Your task to perform on an android device: open chrome privacy settings Image 0: 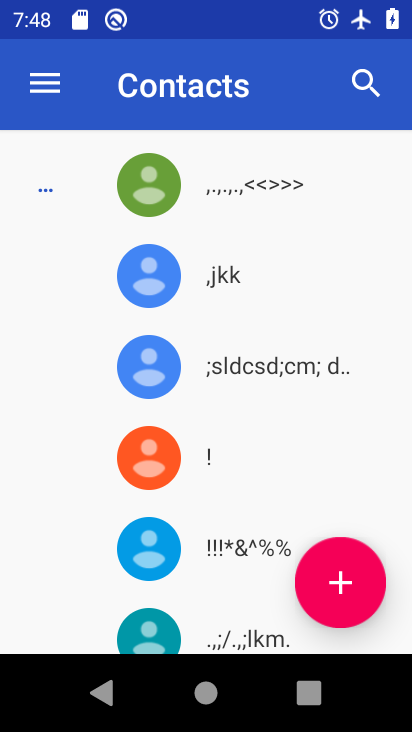
Step 0: press back button
Your task to perform on an android device: open chrome privacy settings Image 1: 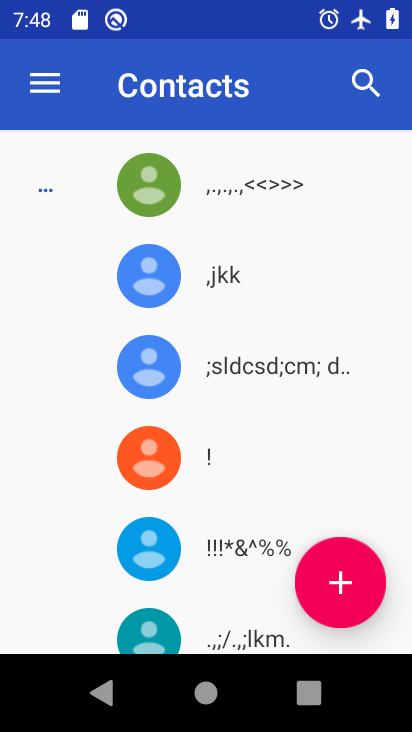
Step 1: press back button
Your task to perform on an android device: open chrome privacy settings Image 2: 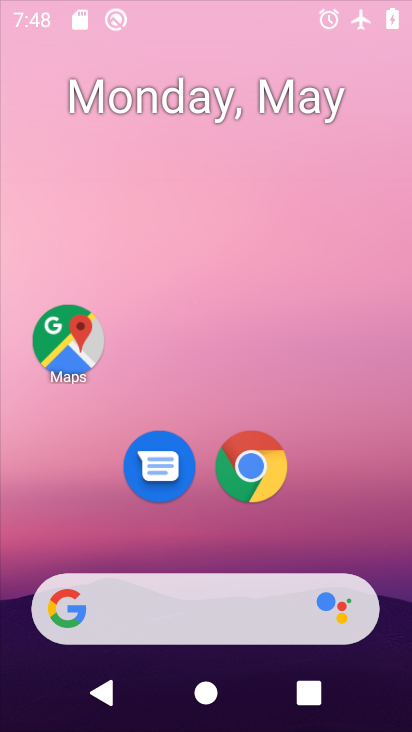
Step 2: press back button
Your task to perform on an android device: open chrome privacy settings Image 3: 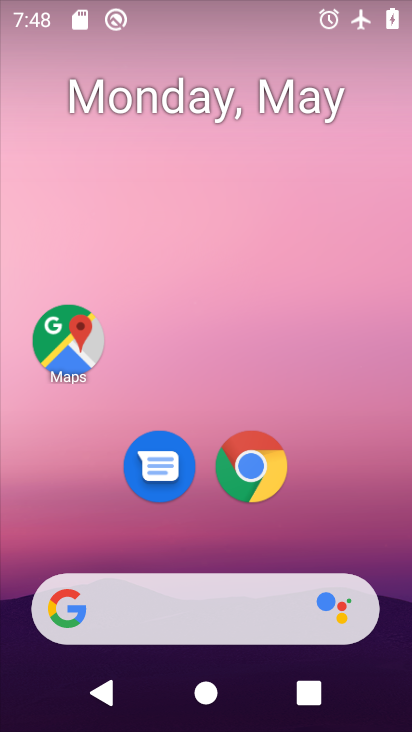
Step 3: drag from (369, 625) to (299, 18)
Your task to perform on an android device: open chrome privacy settings Image 4: 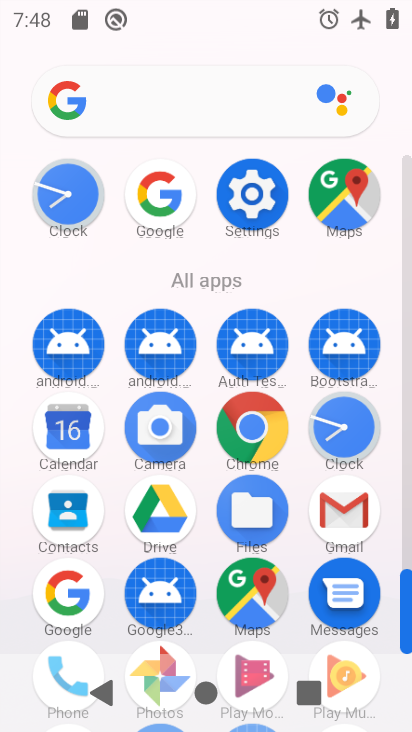
Step 4: click (249, 199)
Your task to perform on an android device: open chrome privacy settings Image 5: 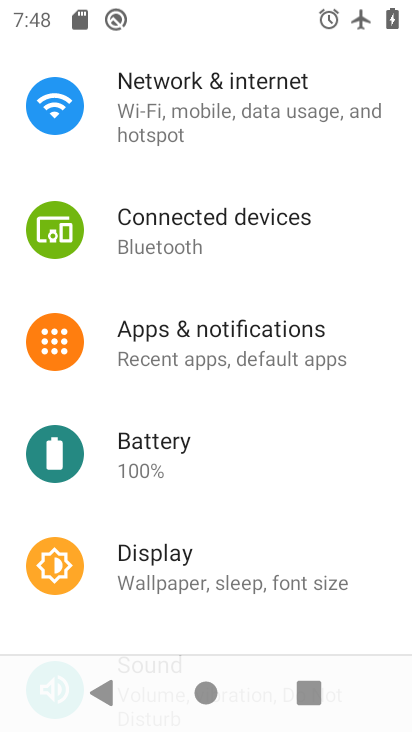
Step 5: press home button
Your task to perform on an android device: open chrome privacy settings Image 6: 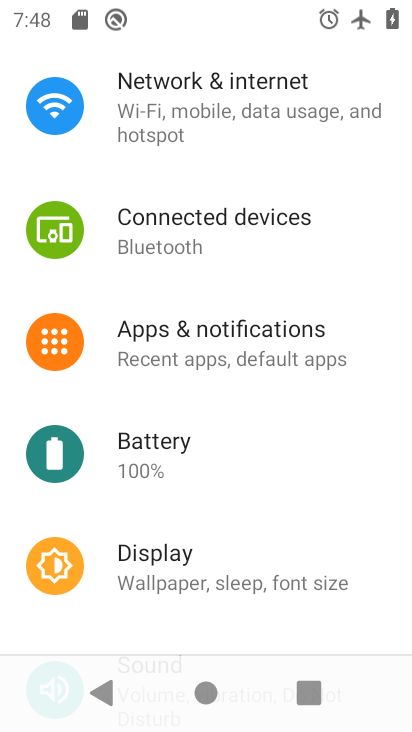
Step 6: press home button
Your task to perform on an android device: open chrome privacy settings Image 7: 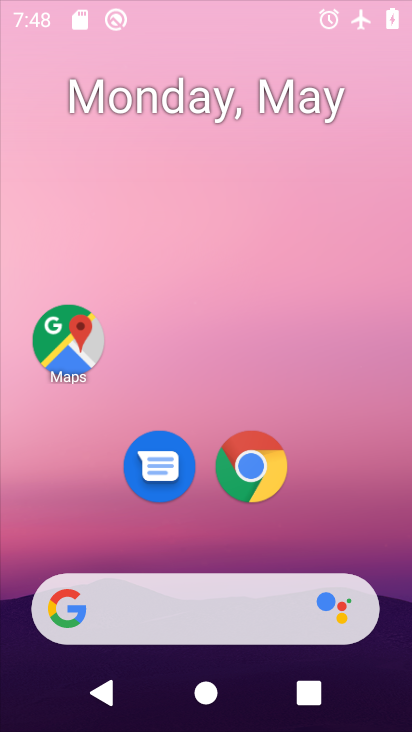
Step 7: press home button
Your task to perform on an android device: open chrome privacy settings Image 8: 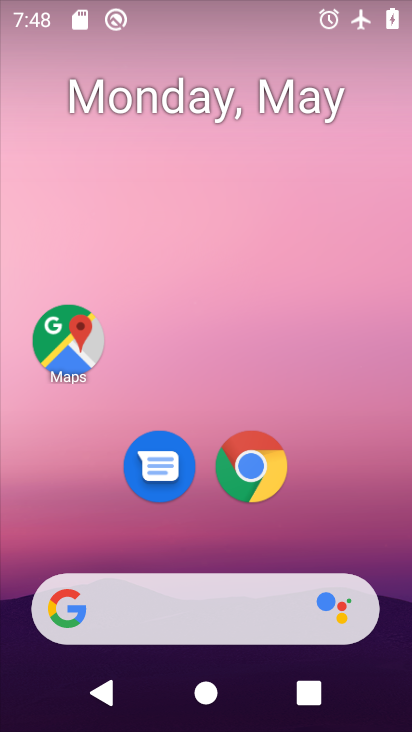
Step 8: drag from (311, 575) to (206, 94)
Your task to perform on an android device: open chrome privacy settings Image 9: 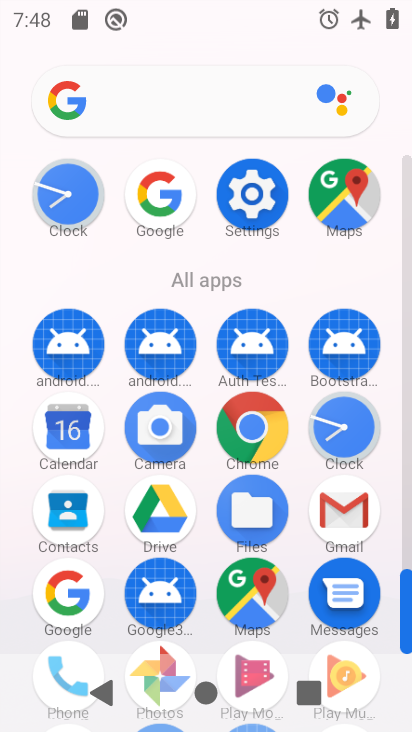
Step 9: click (244, 199)
Your task to perform on an android device: open chrome privacy settings Image 10: 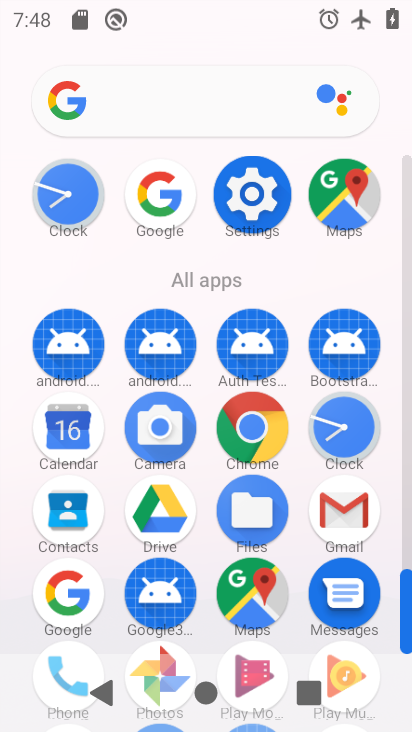
Step 10: click (244, 199)
Your task to perform on an android device: open chrome privacy settings Image 11: 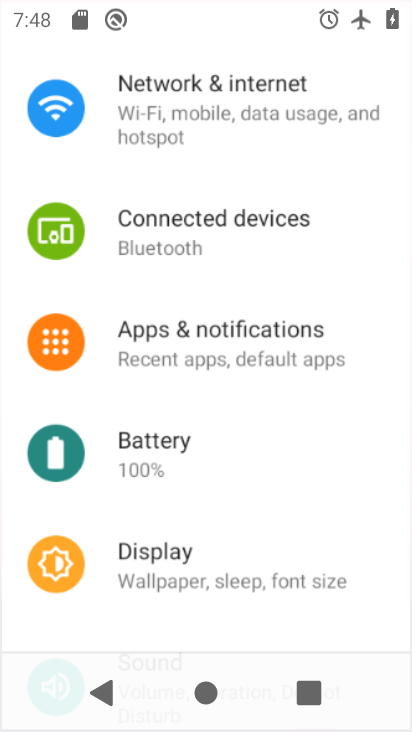
Step 11: click (245, 198)
Your task to perform on an android device: open chrome privacy settings Image 12: 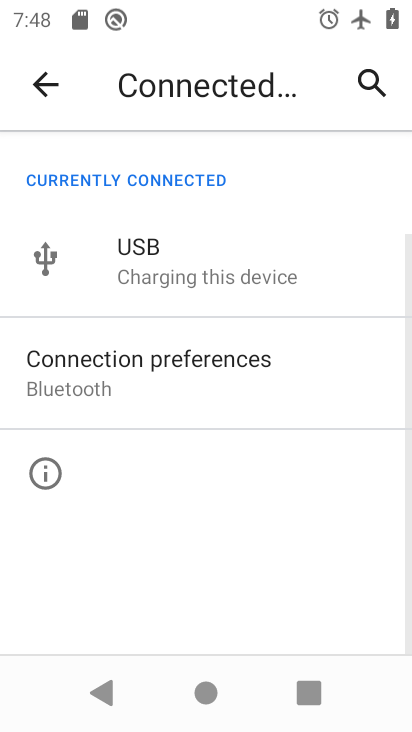
Step 12: click (42, 90)
Your task to perform on an android device: open chrome privacy settings Image 13: 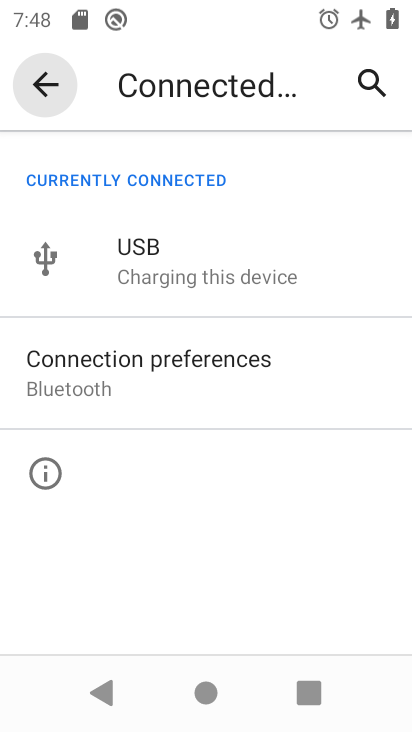
Step 13: click (41, 89)
Your task to perform on an android device: open chrome privacy settings Image 14: 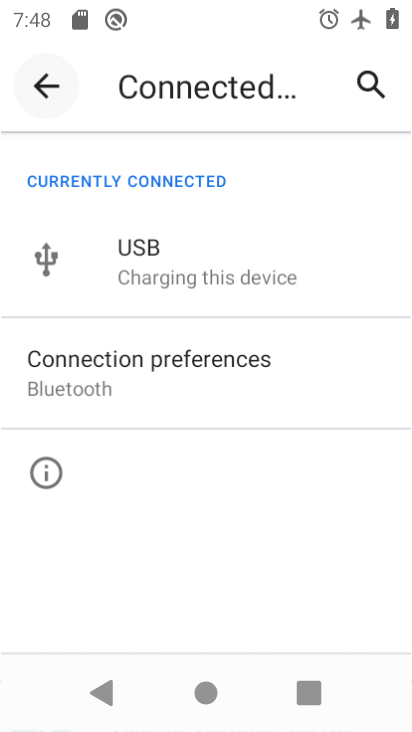
Step 14: click (39, 90)
Your task to perform on an android device: open chrome privacy settings Image 15: 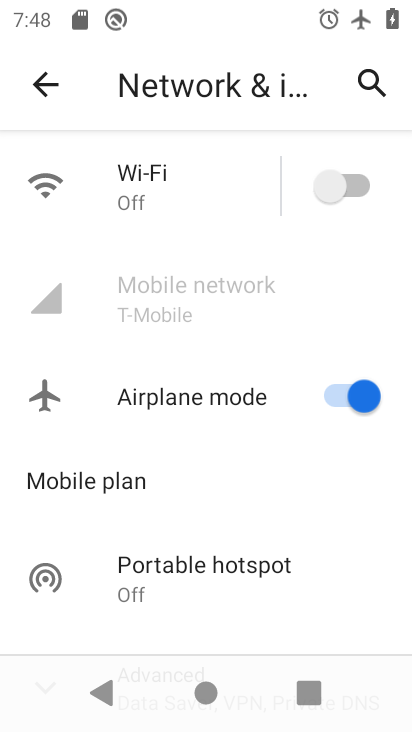
Step 15: click (39, 78)
Your task to perform on an android device: open chrome privacy settings Image 16: 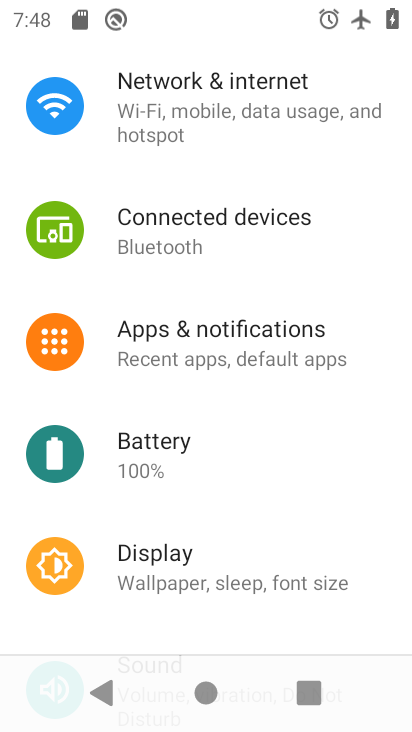
Step 16: press home button
Your task to perform on an android device: open chrome privacy settings Image 17: 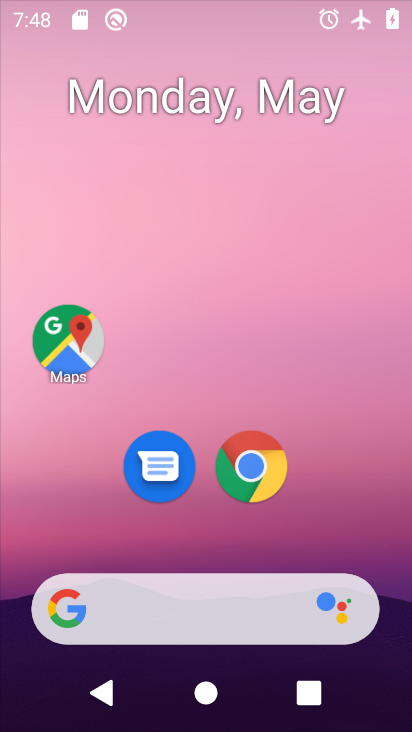
Step 17: drag from (257, 581) to (147, 41)
Your task to perform on an android device: open chrome privacy settings Image 18: 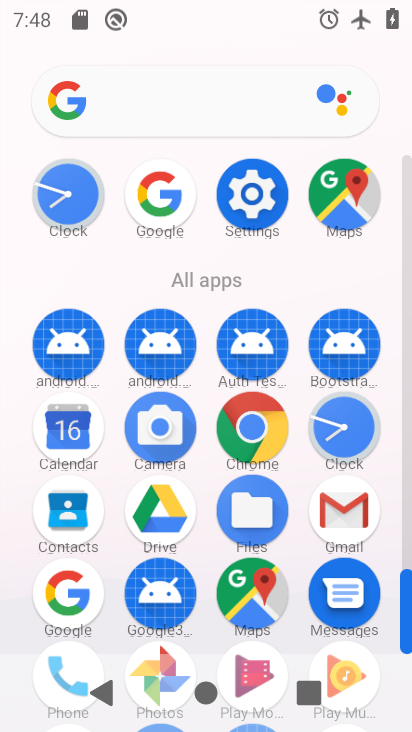
Step 18: click (244, 440)
Your task to perform on an android device: open chrome privacy settings Image 19: 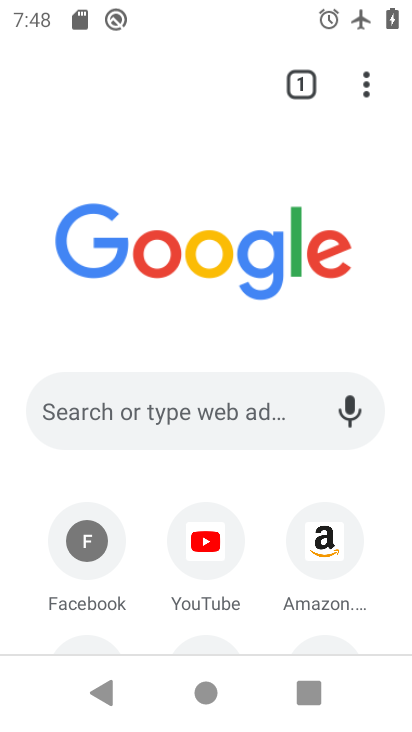
Step 19: drag from (361, 90) to (68, 507)
Your task to perform on an android device: open chrome privacy settings Image 20: 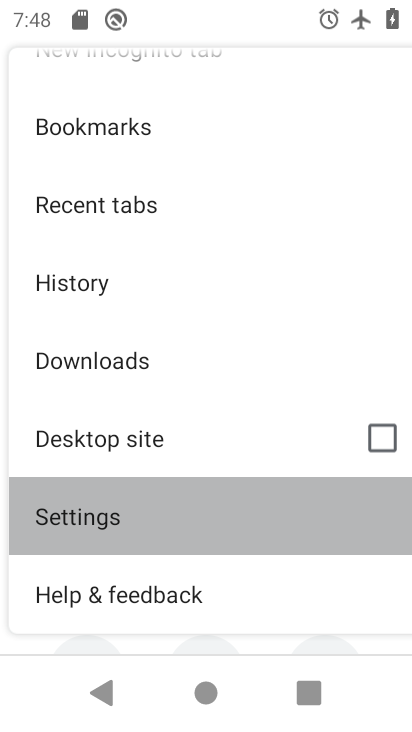
Step 20: click (62, 499)
Your task to perform on an android device: open chrome privacy settings Image 21: 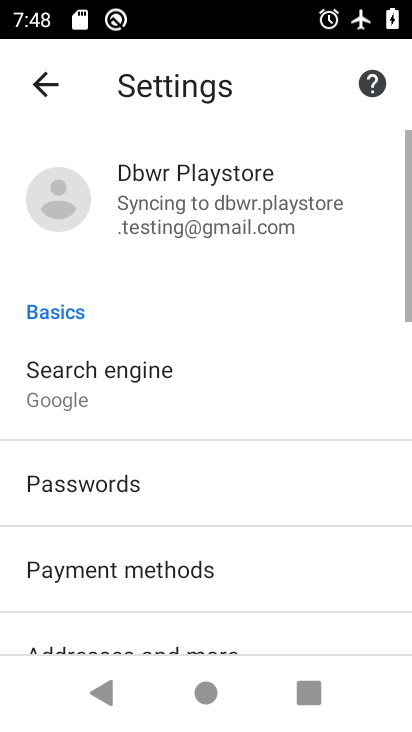
Step 21: drag from (122, 514) to (104, 121)
Your task to perform on an android device: open chrome privacy settings Image 22: 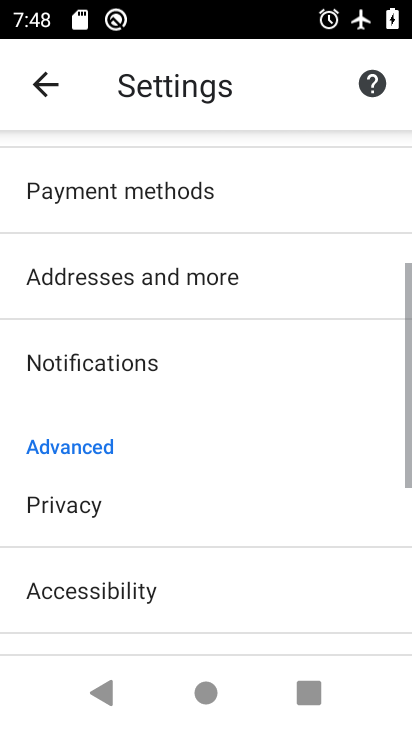
Step 22: drag from (170, 443) to (107, 58)
Your task to perform on an android device: open chrome privacy settings Image 23: 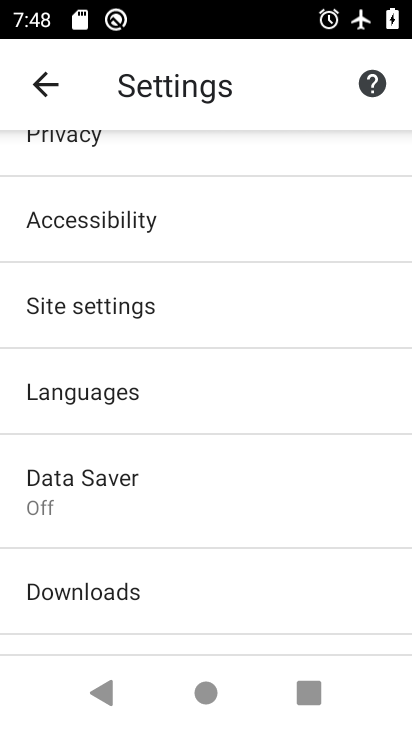
Step 23: click (68, 141)
Your task to perform on an android device: open chrome privacy settings Image 24: 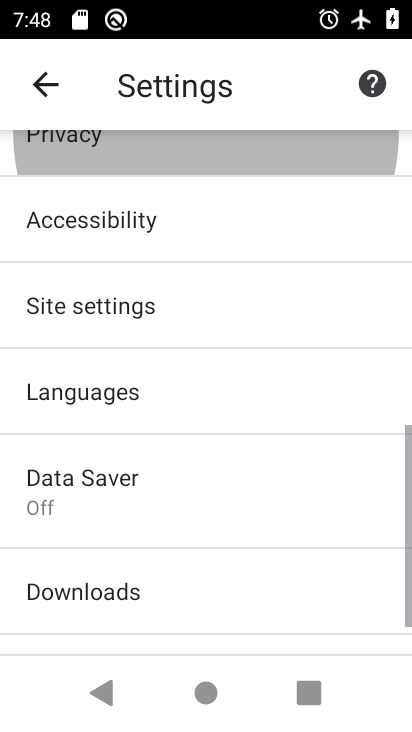
Step 24: click (68, 141)
Your task to perform on an android device: open chrome privacy settings Image 25: 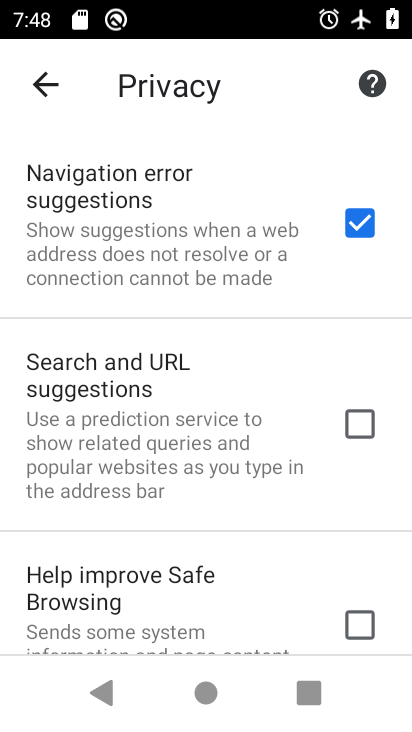
Step 25: task complete